Your task to perform on an android device: delete the emails in spam in the gmail app Image 0: 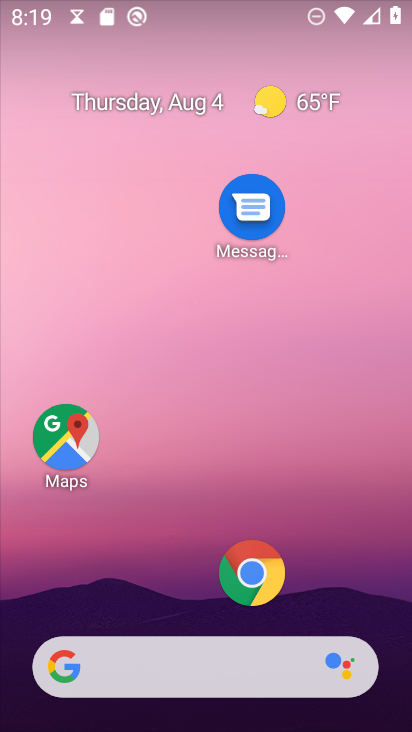
Step 0: press home button
Your task to perform on an android device: delete the emails in spam in the gmail app Image 1: 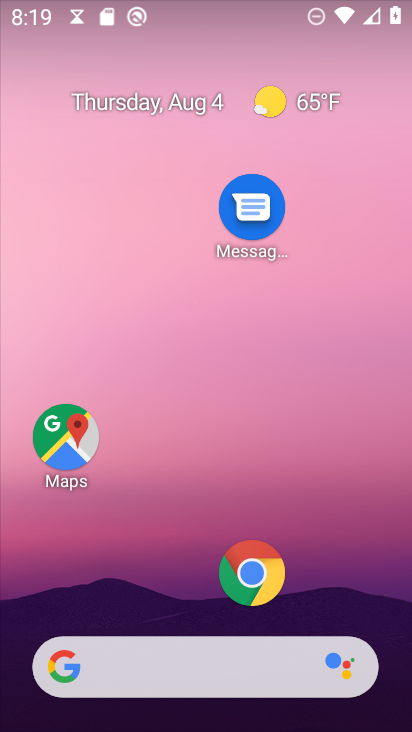
Step 1: drag from (196, 495) to (194, 179)
Your task to perform on an android device: delete the emails in spam in the gmail app Image 2: 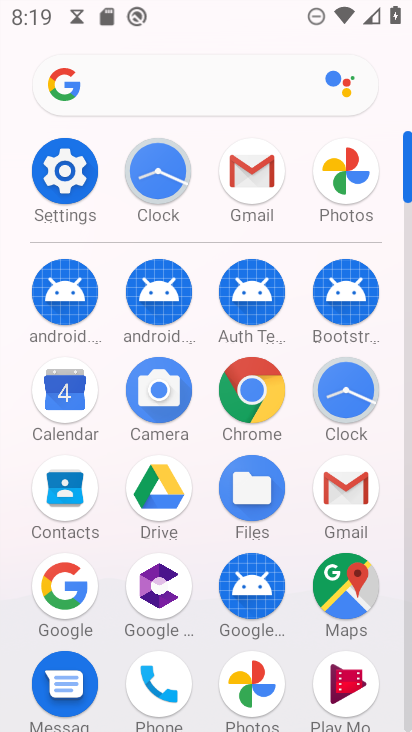
Step 2: click (261, 175)
Your task to perform on an android device: delete the emails in spam in the gmail app Image 3: 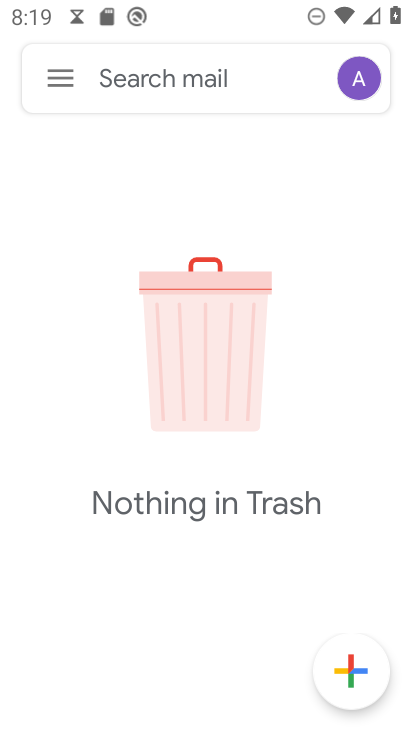
Step 3: click (81, 71)
Your task to perform on an android device: delete the emails in spam in the gmail app Image 4: 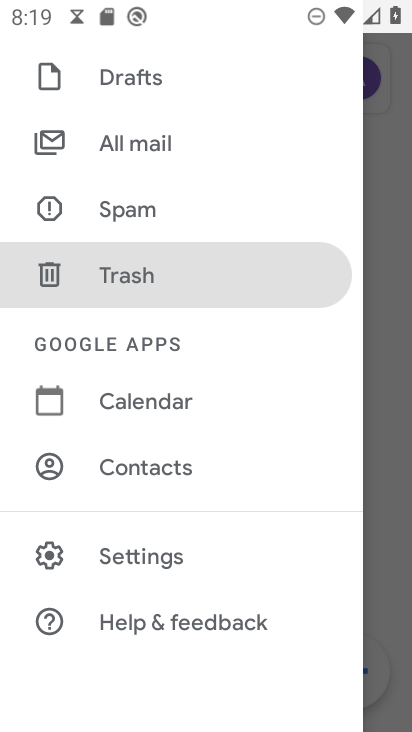
Step 4: click (128, 224)
Your task to perform on an android device: delete the emails in spam in the gmail app Image 5: 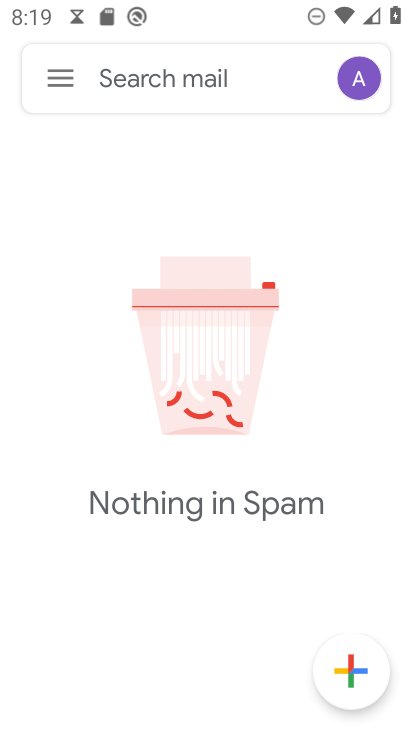
Step 5: task complete